Your task to perform on an android device: choose inbox layout in the gmail app Image 0: 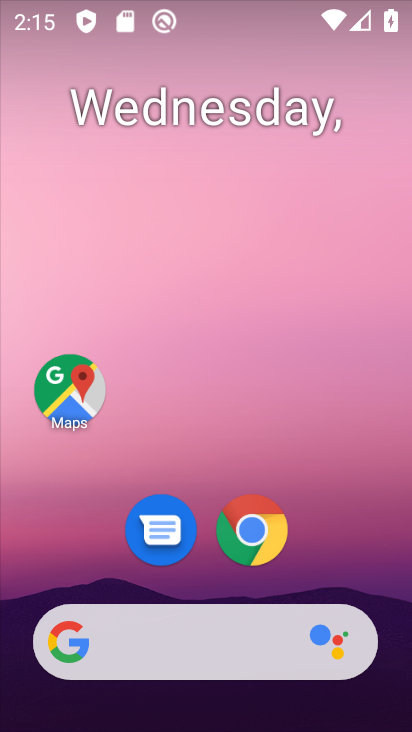
Step 0: drag from (198, 630) to (214, 30)
Your task to perform on an android device: choose inbox layout in the gmail app Image 1: 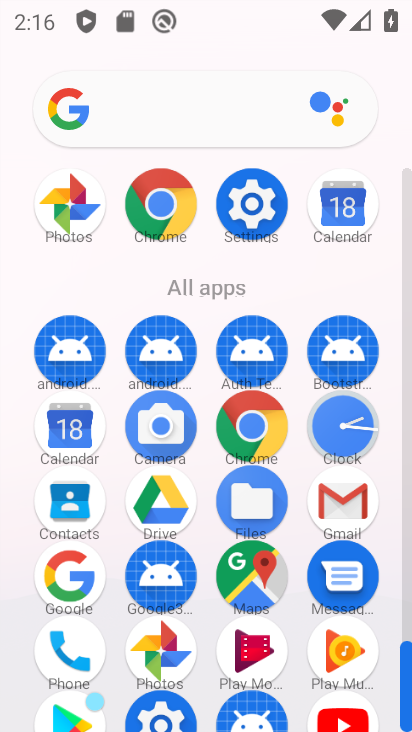
Step 1: click (340, 491)
Your task to perform on an android device: choose inbox layout in the gmail app Image 2: 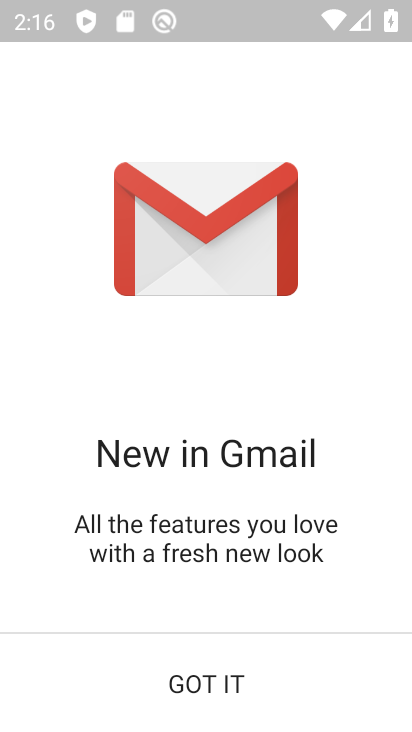
Step 2: click (215, 672)
Your task to perform on an android device: choose inbox layout in the gmail app Image 3: 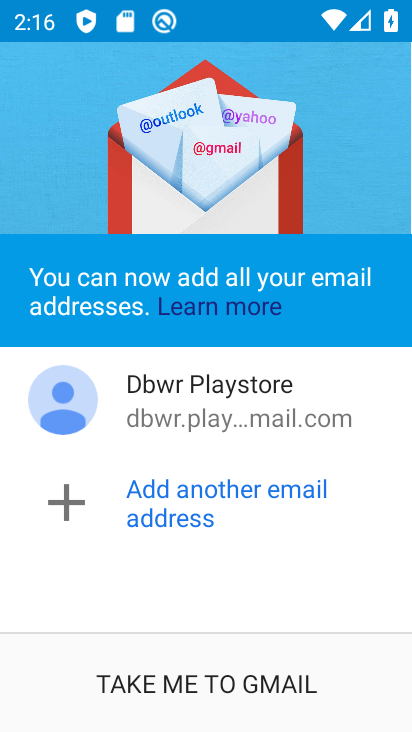
Step 3: click (215, 672)
Your task to perform on an android device: choose inbox layout in the gmail app Image 4: 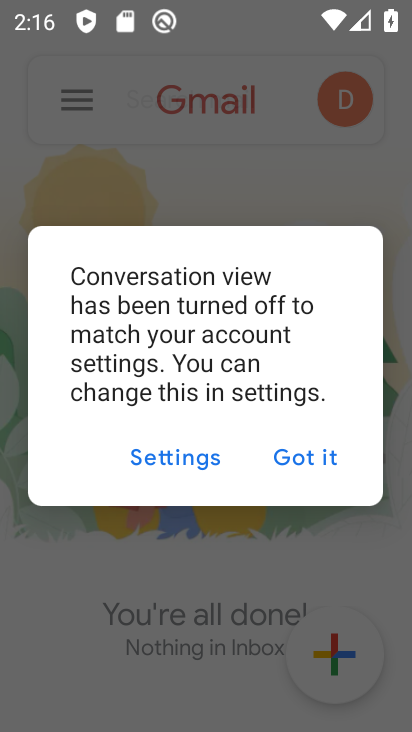
Step 4: click (328, 458)
Your task to perform on an android device: choose inbox layout in the gmail app Image 5: 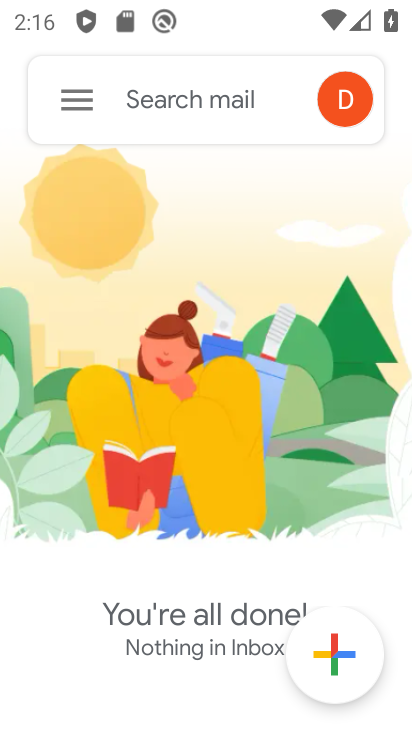
Step 5: click (64, 98)
Your task to perform on an android device: choose inbox layout in the gmail app Image 6: 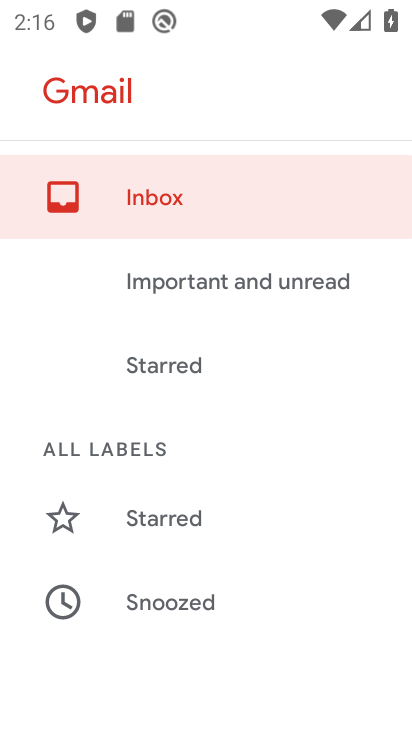
Step 6: drag from (145, 529) to (141, 15)
Your task to perform on an android device: choose inbox layout in the gmail app Image 7: 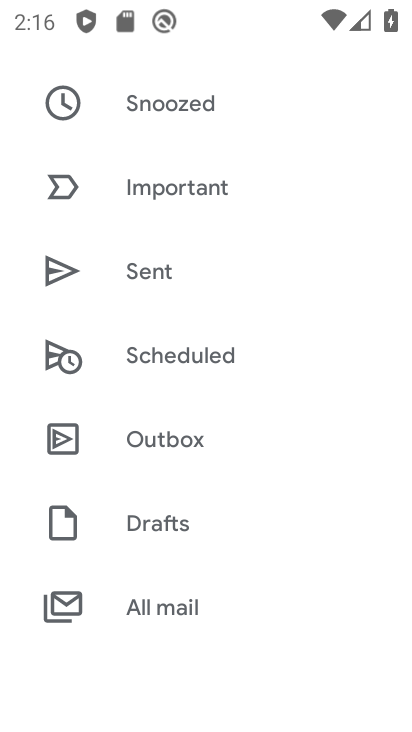
Step 7: drag from (215, 510) to (211, 161)
Your task to perform on an android device: choose inbox layout in the gmail app Image 8: 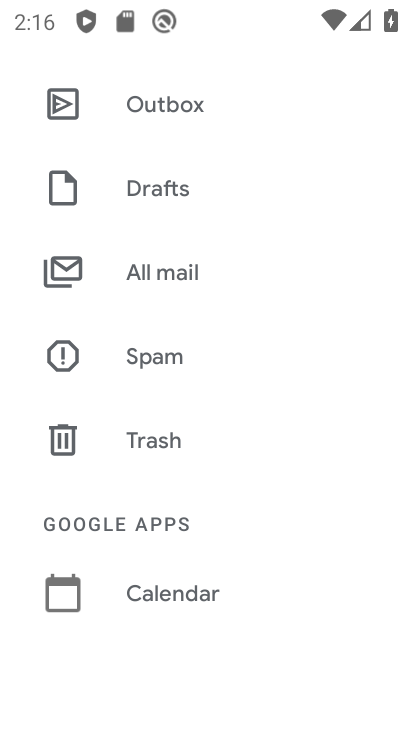
Step 8: drag from (222, 591) to (175, 250)
Your task to perform on an android device: choose inbox layout in the gmail app Image 9: 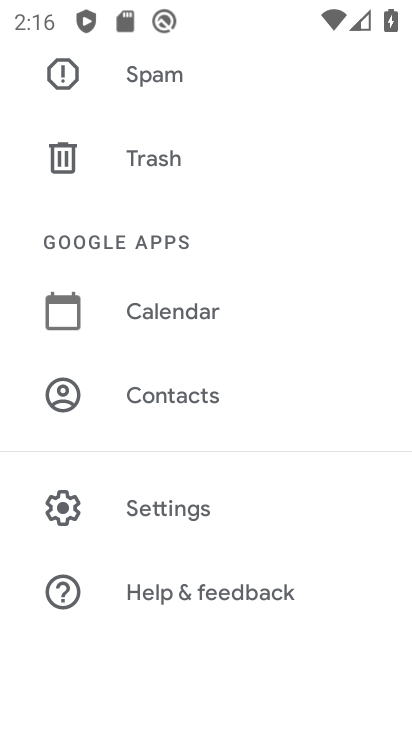
Step 9: click (188, 511)
Your task to perform on an android device: choose inbox layout in the gmail app Image 10: 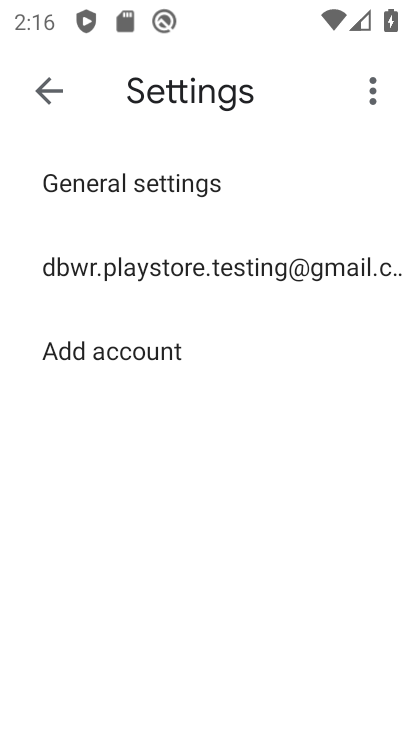
Step 10: click (151, 267)
Your task to perform on an android device: choose inbox layout in the gmail app Image 11: 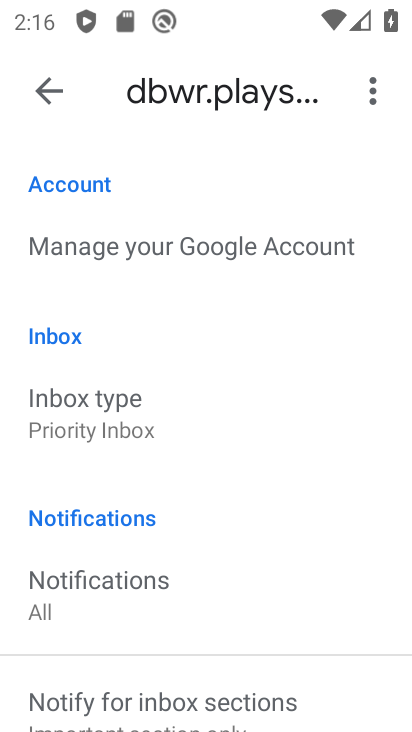
Step 11: click (197, 412)
Your task to perform on an android device: choose inbox layout in the gmail app Image 12: 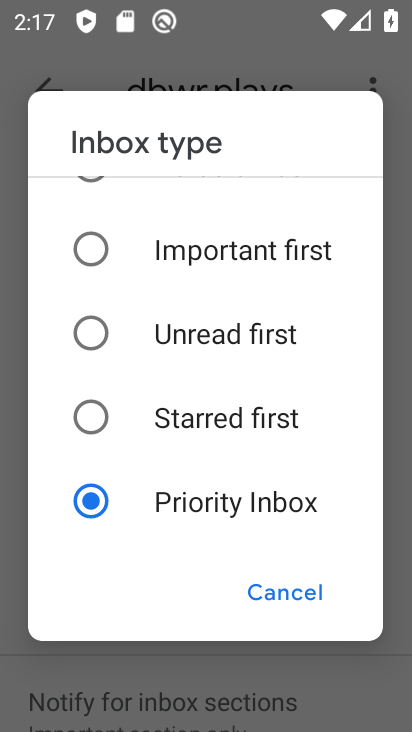
Step 12: click (210, 411)
Your task to perform on an android device: choose inbox layout in the gmail app Image 13: 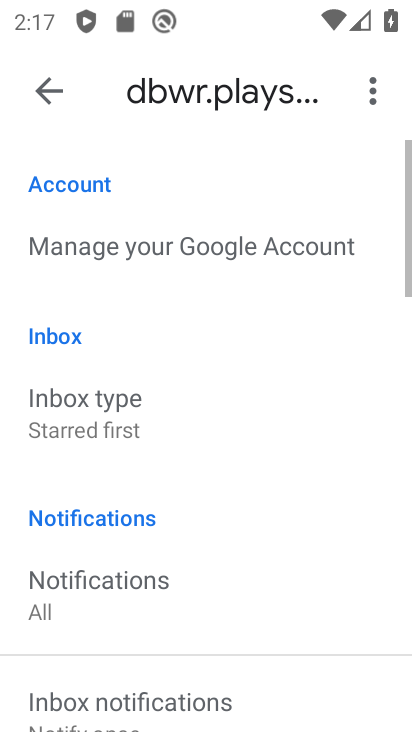
Step 13: task complete